Your task to perform on an android device: choose inbox layout in the gmail app Image 0: 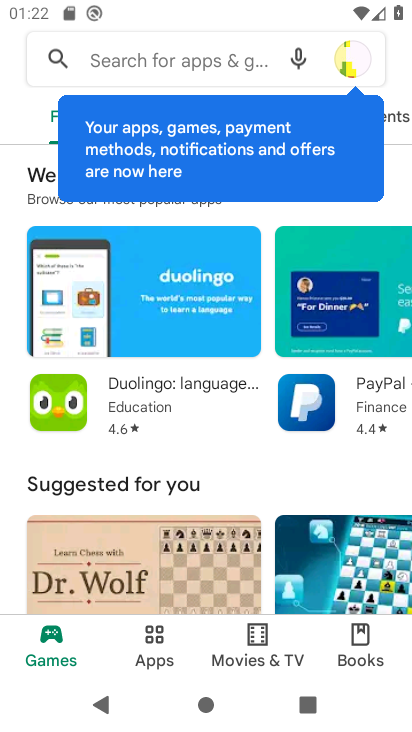
Step 0: press home button
Your task to perform on an android device: choose inbox layout in the gmail app Image 1: 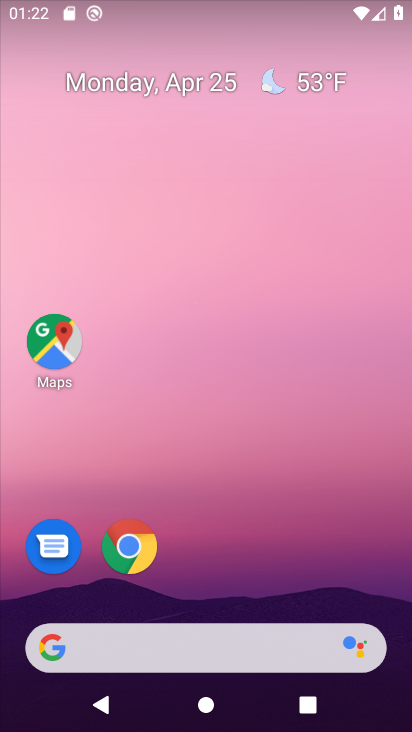
Step 1: drag from (236, 586) to (227, 41)
Your task to perform on an android device: choose inbox layout in the gmail app Image 2: 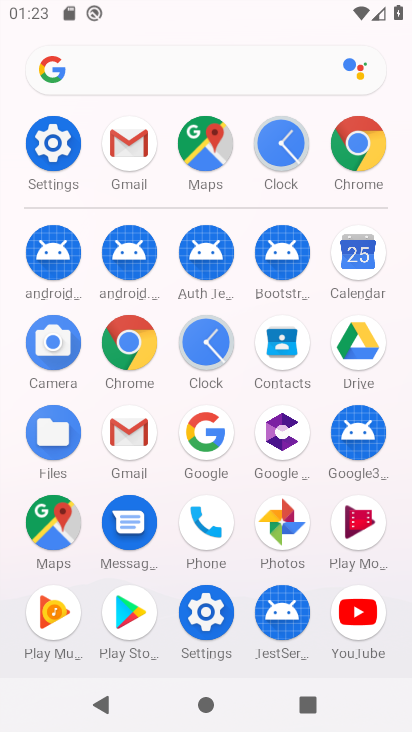
Step 2: click (125, 145)
Your task to perform on an android device: choose inbox layout in the gmail app Image 3: 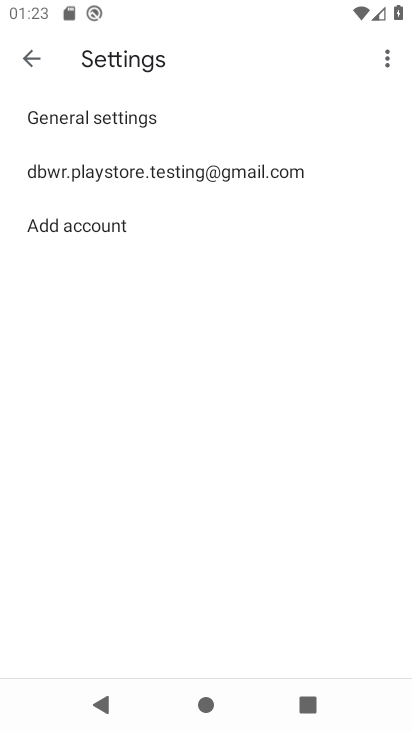
Step 3: click (33, 69)
Your task to perform on an android device: choose inbox layout in the gmail app Image 4: 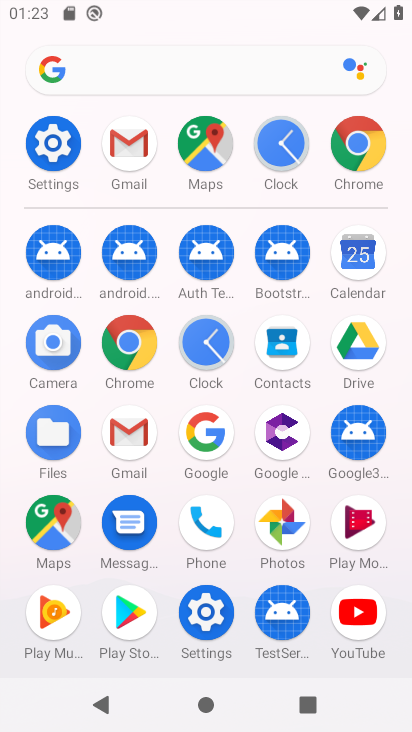
Step 4: click (116, 121)
Your task to perform on an android device: choose inbox layout in the gmail app Image 5: 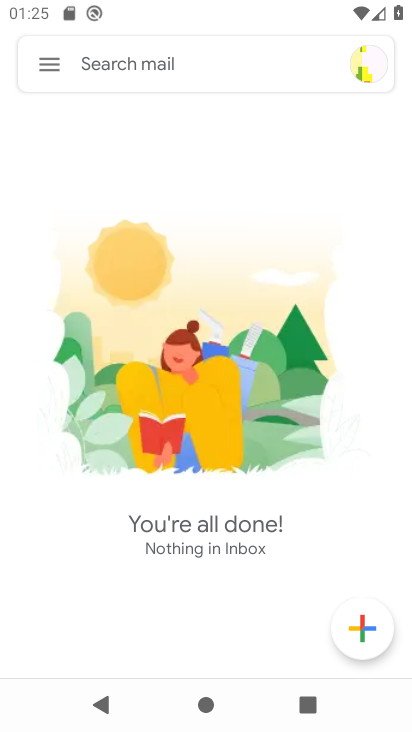
Step 5: click (52, 49)
Your task to perform on an android device: choose inbox layout in the gmail app Image 6: 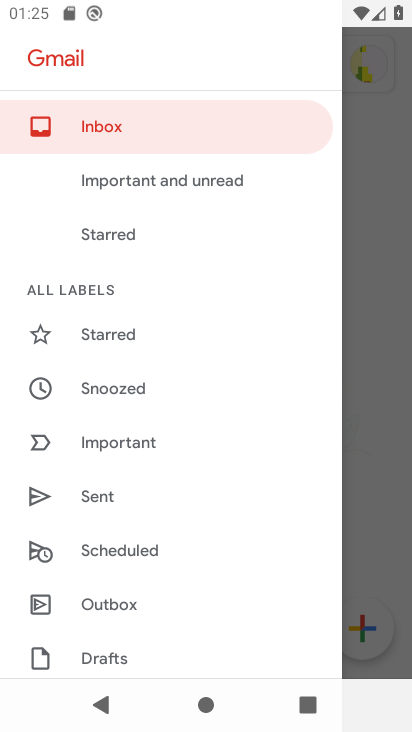
Step 6: drag from (80, 603) to (91, 93)
Your task to perform on an android device: choose inbox layout in the gmail app Image 7: 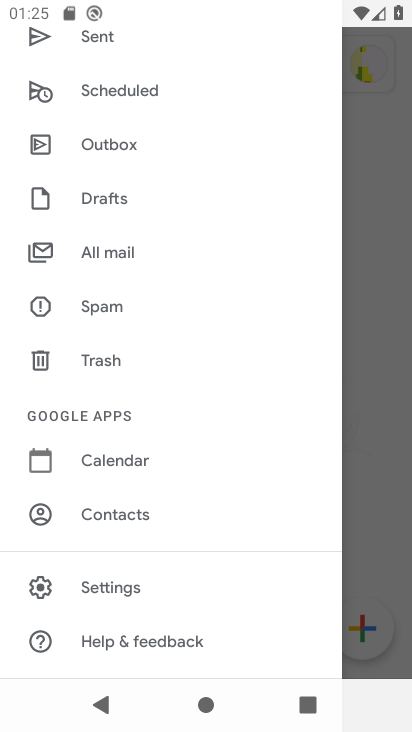
Step 7: click (58, 583)
Your task to perform on an android device: choose inbox layout in the gmail app Image 8: 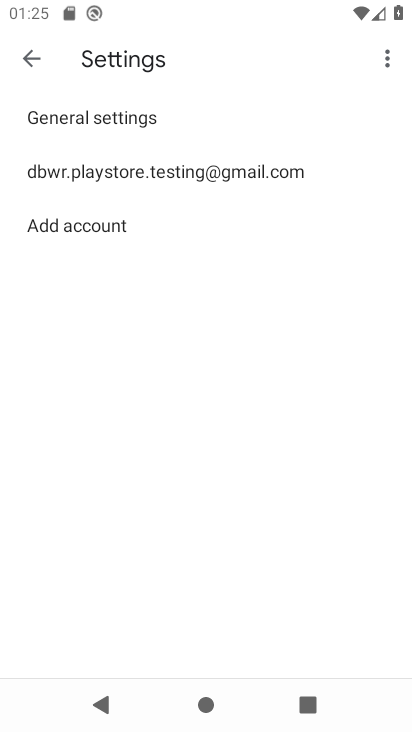
Step 8: click (154, 159)
Your task to perform on an android device: choose inbox layout in the gmail app Image 9: 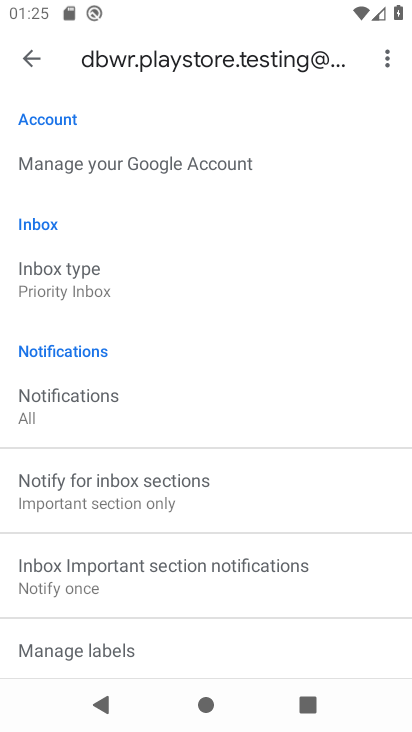
Step 9: drag from (167, 603) to (181, 464)
Your task to perform on an android device: choose inbox layout in the gmail app Image 10: 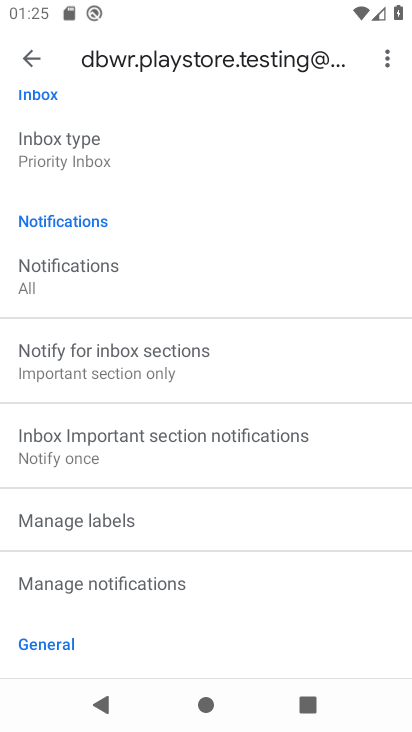
Step 10: click (182, 154)
Your task to perform on an android device: choose inbox layout in the gmail app Image 11: 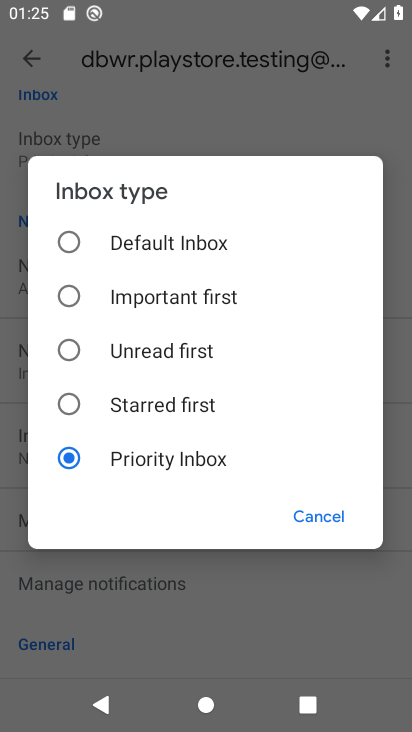
Step 11: click (154, 445)
Your task to perform on an android device: choose inbox layout in the gmail app Image 12: 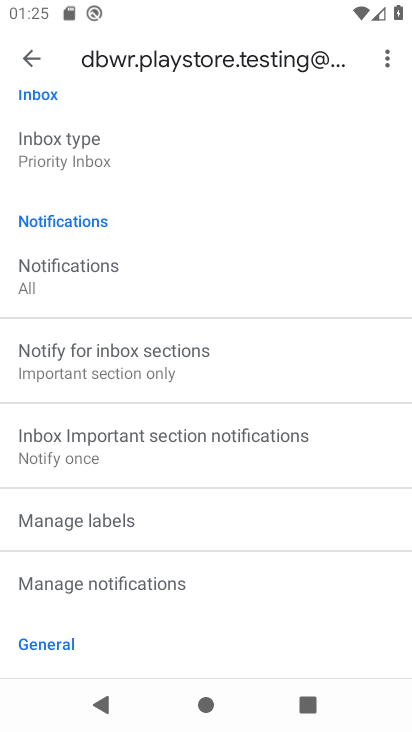
Step 12: task complete